Your task to perform on an android device: change notifications settings Image 0: 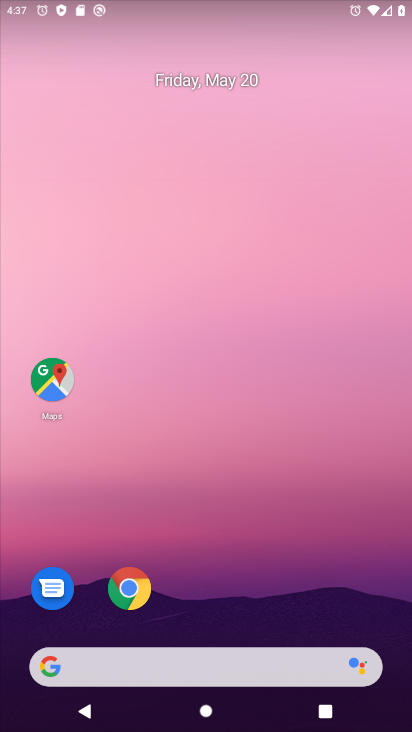
Step 0: drag from (217, 621) to (208, 78)
Your task to perform on an android device: change notifications settings Image 1: 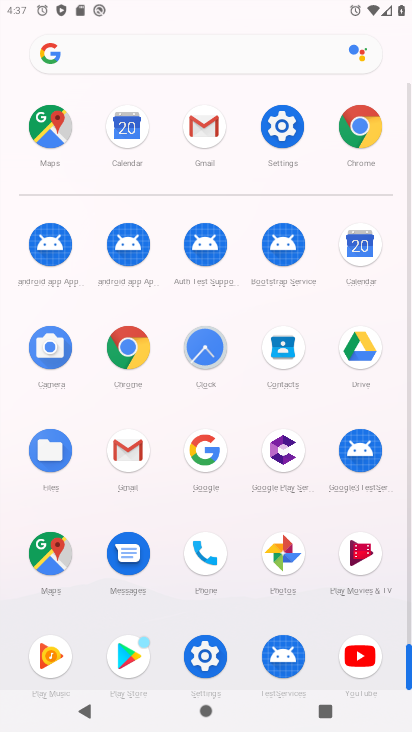
Step 1: click (281, 127)
Your task to perform on an android device: change notifications settings Image 2: 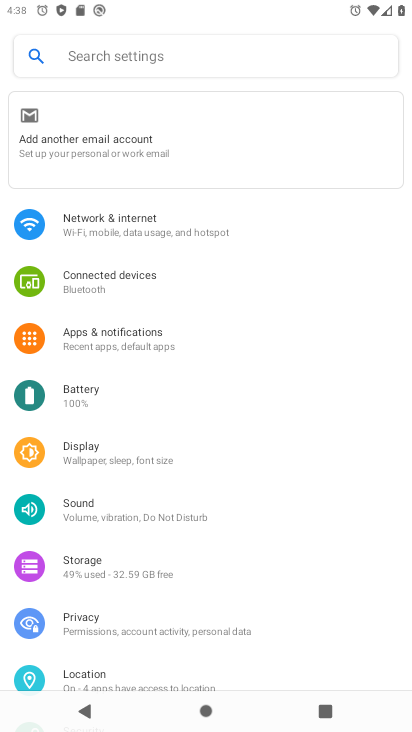
Step 2: click (115, 334)
Your task to perform on an android device: change notifications settings Image 3: 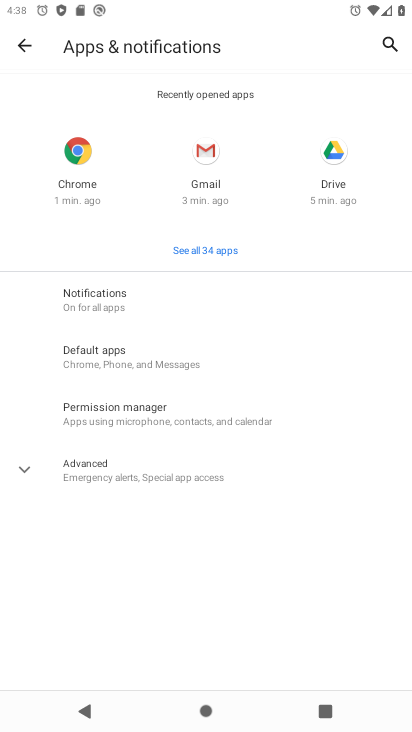
Step 3: click (95, 300)
Your task to perform on an android device: change notifications settings Image 4: 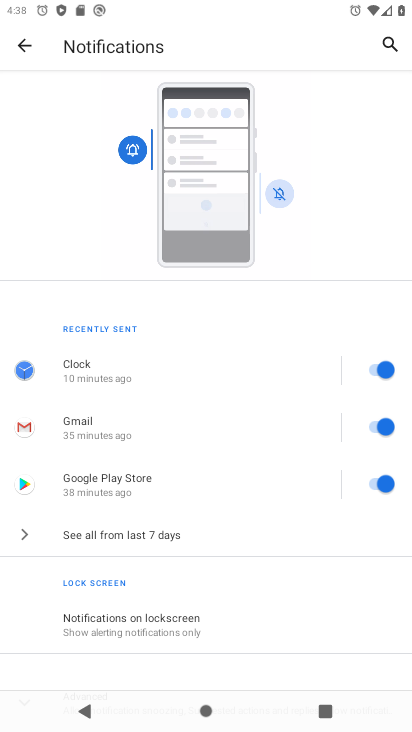
Step 4: click (386, 477)
Your task to perform on an android device: change notifications settings Image 5: 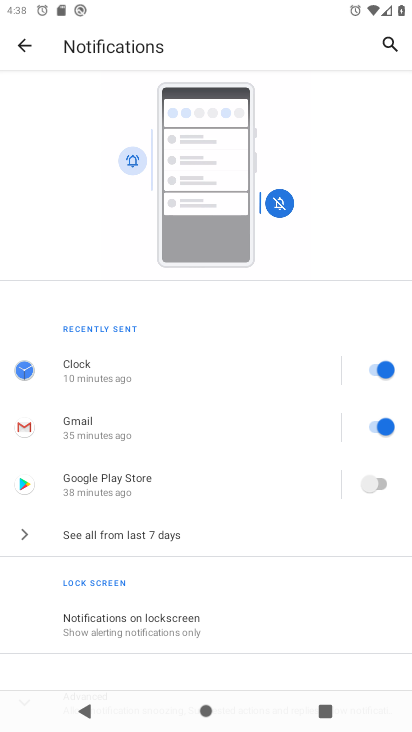
Step 5: task complete